Your task to perform on an android device: turn off notifications in google photos Image 0: 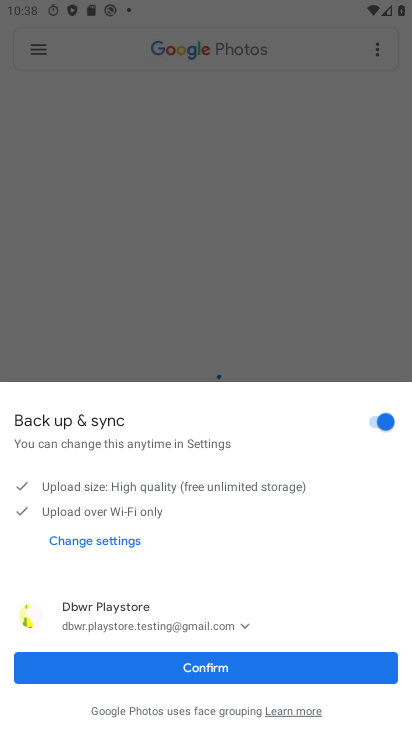
Step 0: click (310, 657)
Your task to perform on an android device: turn off notifications in google photos Image 1: 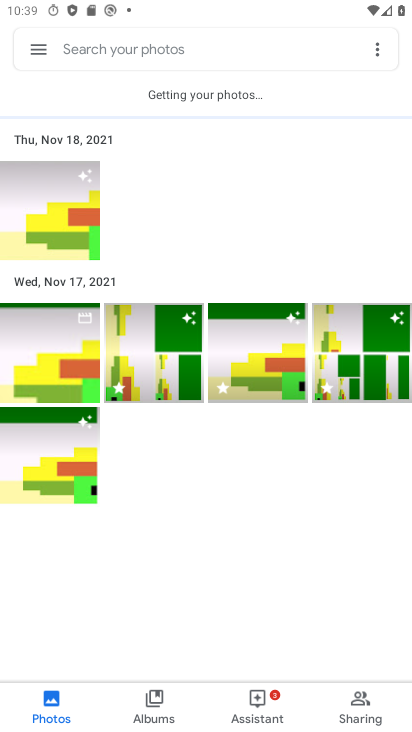
Step 1: click (35, 50)
Your task to perform on an android device: turn off notifications in google photos Image 2: 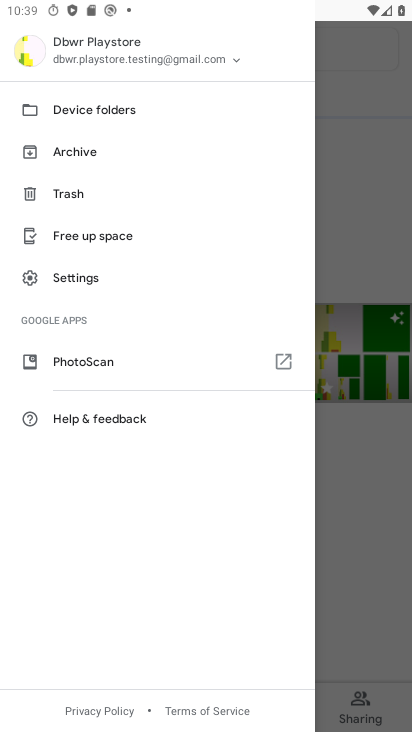
Step 2: click (69, 274)
Your task to perform on an android device: turn off notifications in google photos Image 3: 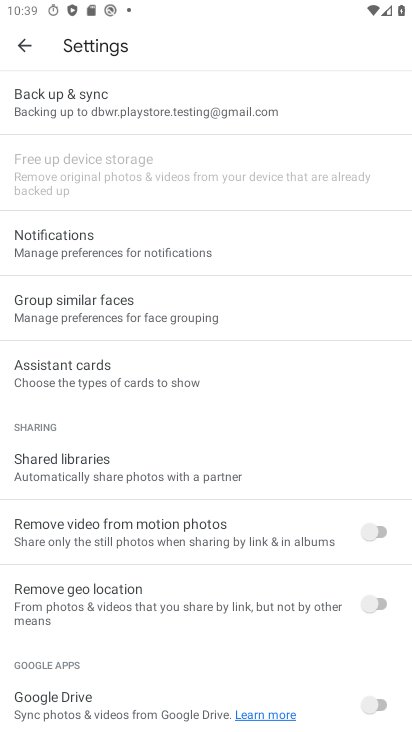
Step 3: click (106, 241)
Your task to perform on an android device: turn off notifications in google photos Image 4: 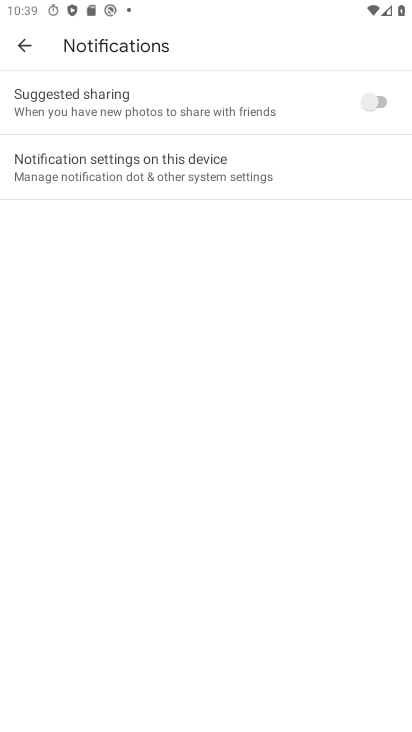
Step 4: click (390, 93)
Your task to perform on an android device: turn off notifications in google photos Image 5: 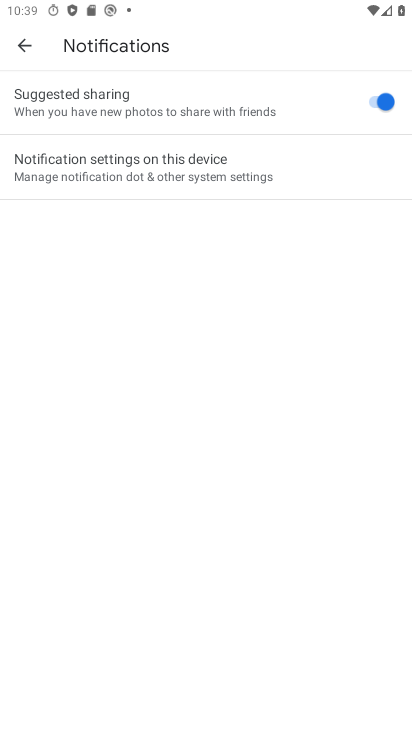
Step 5: click (369, 100)
Your task to perform on an android device: turn off notifications in google photos Image 6: 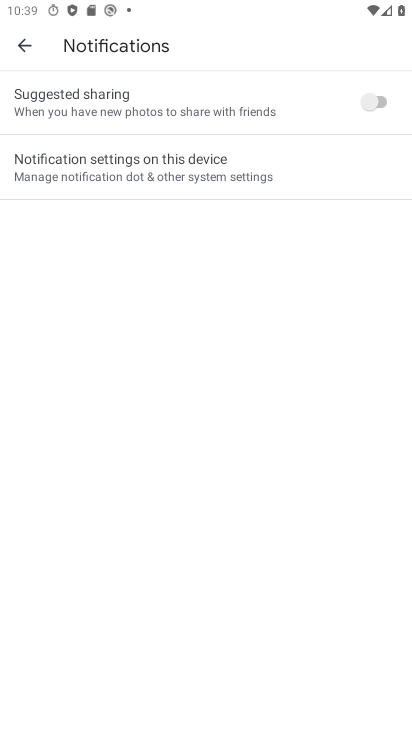
Step 6: task complete